Your task to perform on an android device: Show me popular videos on Youtube Image 0: 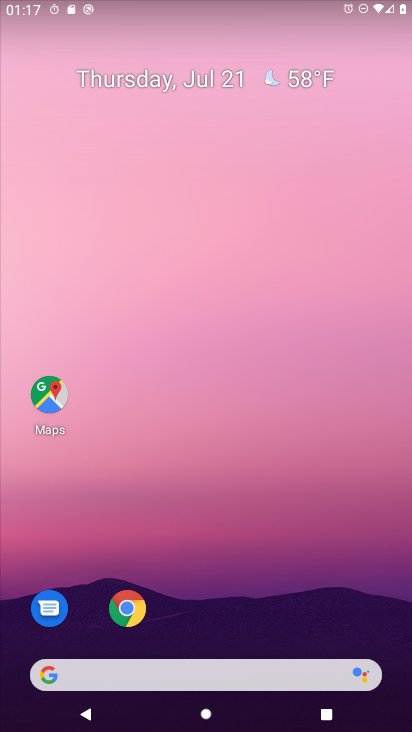
Step 0: press home button
Your task to perform on an android device: Show me popular videos on Youtube Image 1: 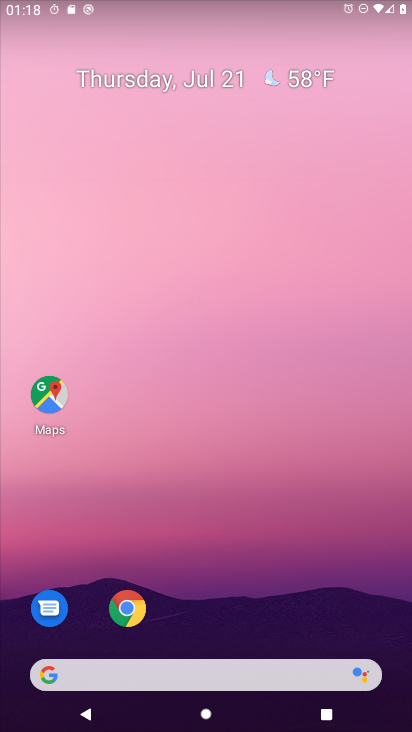
Step 1: drag from (250, 600) to (265, 30)
Your task to perform on an android device: Show me popular videos on Youtube Image 2: 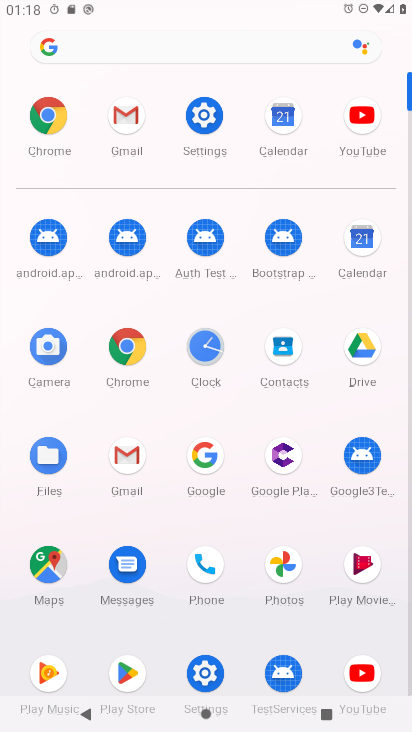
Step 2: click (353, 658)
Your task to perform on an android device: Show me popular videos on Youtube Image 3: 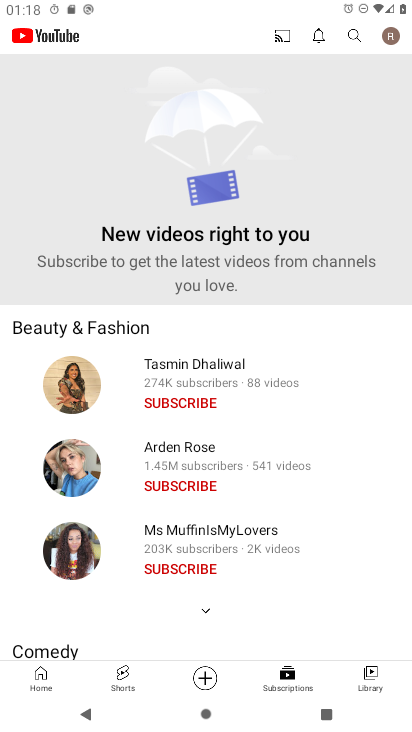
Step 3: click (36, 675)
Your task to perform on an android device: Show me popular videos on Youtube Image 4: 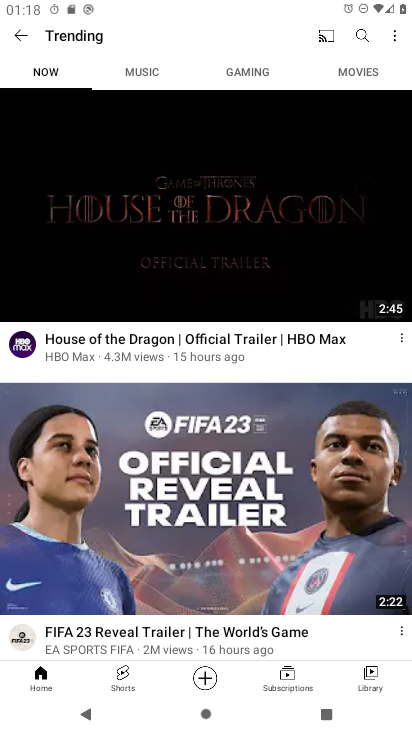
Step 4: click (74, 36)
Your task to perform on an android device: Show me popular videos on Youtube Image 5: 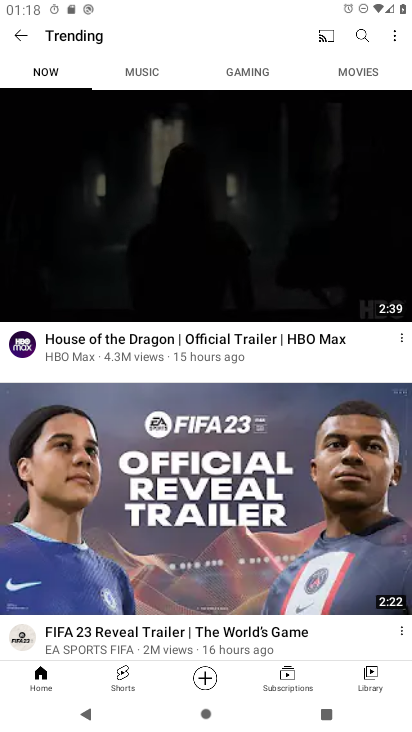
Step 5: click (42, 681)
Your task to perform on an android device: Show me popular videos on Youtube Image 6: 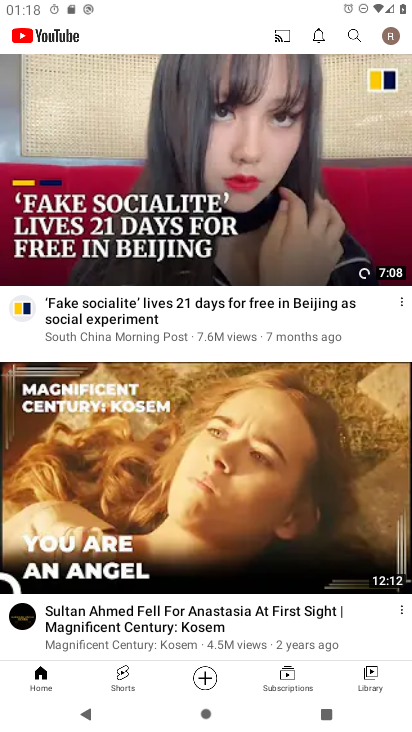
Step 6: drag from (162, 114) to (80, 724)
Your task to perform on an android device: Show me popular videos on Youtube Image 7: 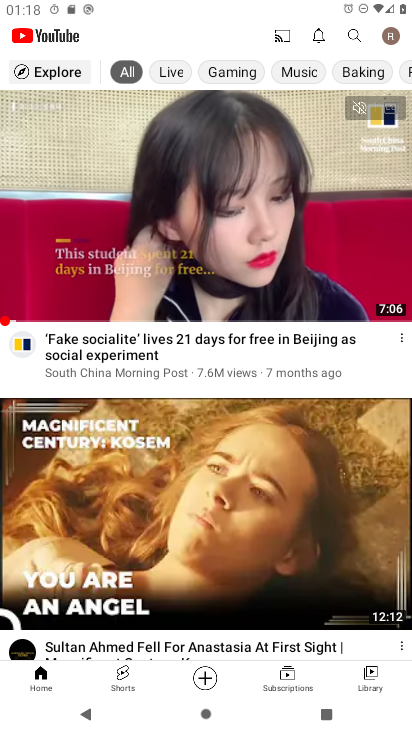
Step 7: click (42, 70)
Your task to perform on an android device: Show me popular videos on Youtube Image 8: 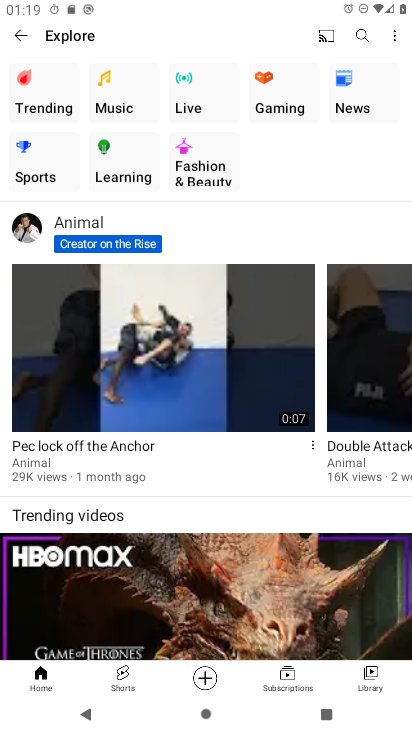
Step 8: click (49, 107)
Your task to perform on an android device: Show me popular videos on Youtube Image 9: 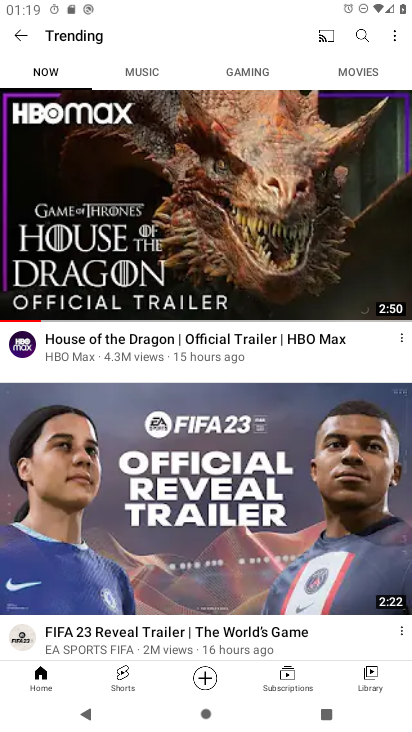
Step 9: task complete